Your task to perform on an android device: Turn off the flashlight Image 0: 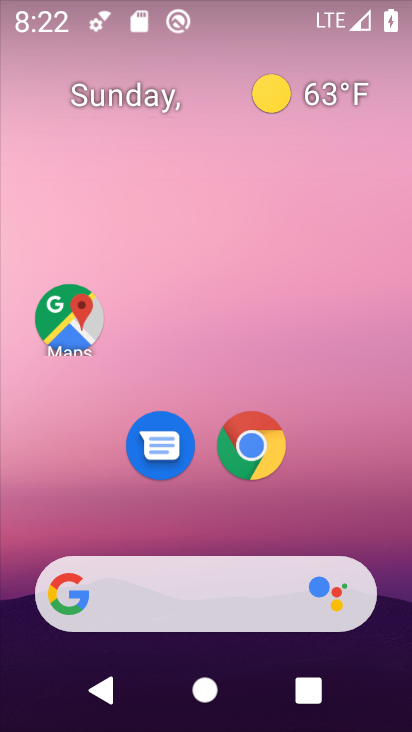
Step 0: drag from (232, 538) to (244, 53)
Your task to perform on an android device: Turn off the flashlight Image 1: 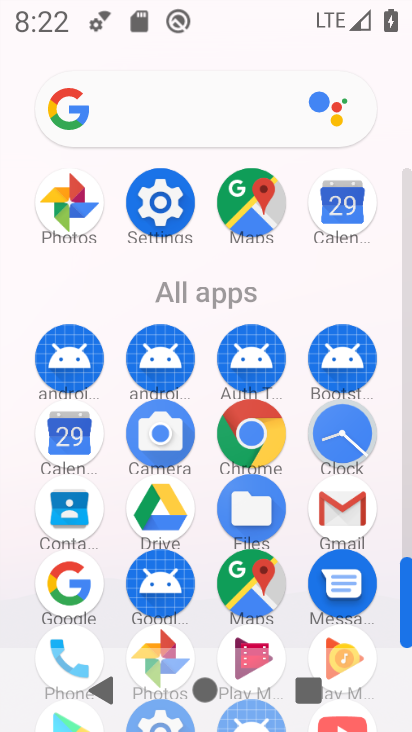
Step 1: click (158, 202)
Your task to perform on an android device: Turn off the flashlight Image 2: 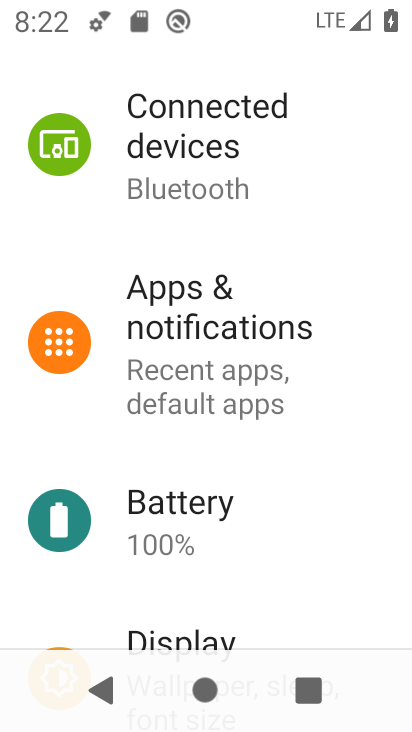
Step 2: task complete